Your task to perform on an android device: open a bookmark in the chrome app Image 0: 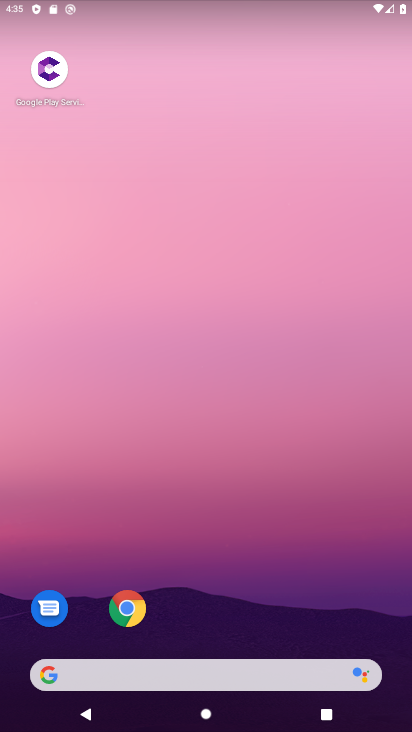
Step 0: drag from (249, 573) to (255, 196)
Your task to perform on an android device: open a bookmark in the chrome app Image 1: 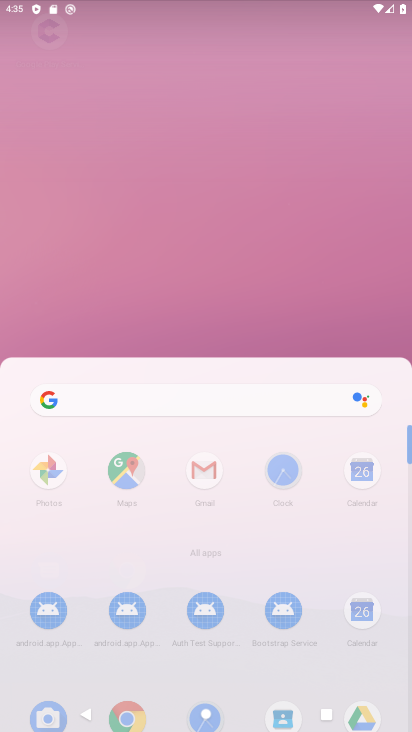
Step 1: drag from (244, 411) to (214, 31)
Your task to perform on an android device: open a bookmark in the chrome app Image 2: 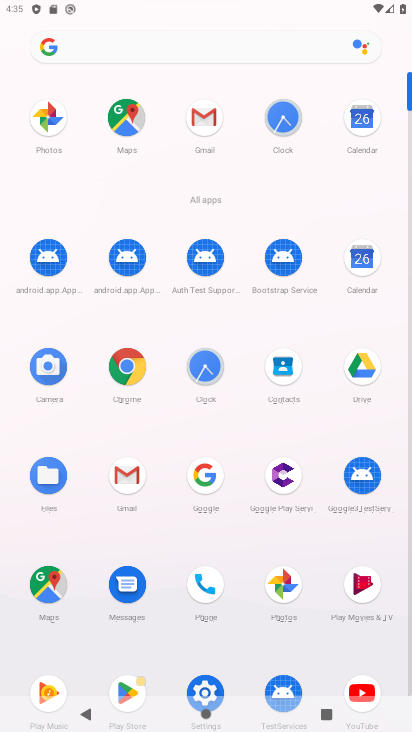
Step 2: drag from (232, 363) to (193, 27)
Your task to perform on an android device: open a bookmark in the chrome app Image 3: 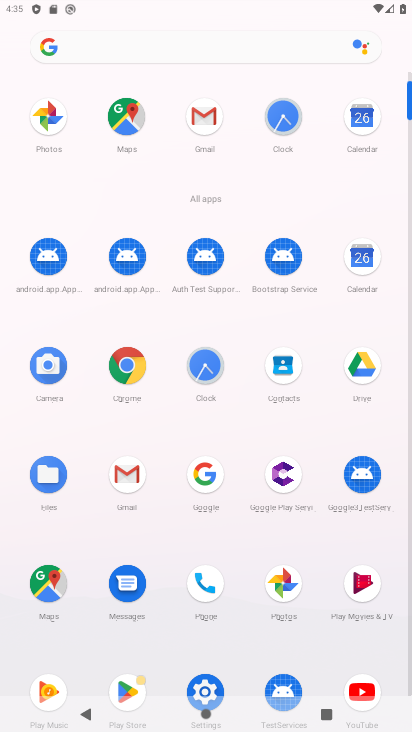
Step 3: click (133, 360)
Your task to perform on an android device: open a bookmark in the chrome app Image 4: 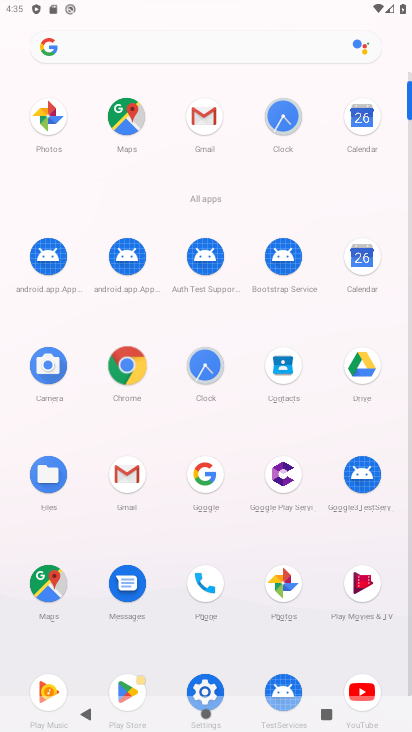
Step 4: click (135, 364)
Your task to perform on an android device: open a bookmark in the chrome app Image 5: 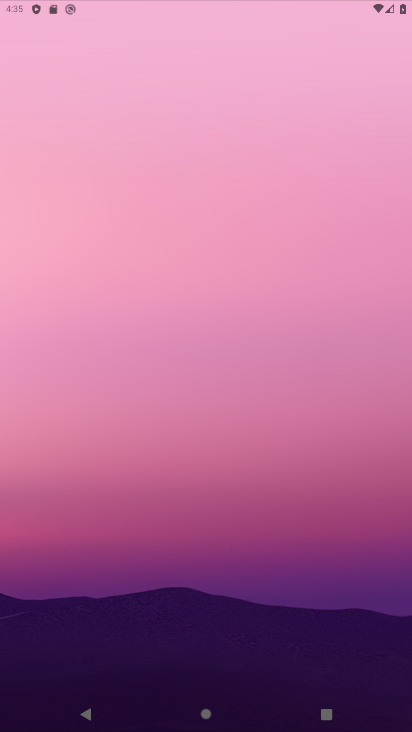
Step 5: click (135, 358)
Your task to perform on an android device: open a bookmark in the chrome app Image 6: 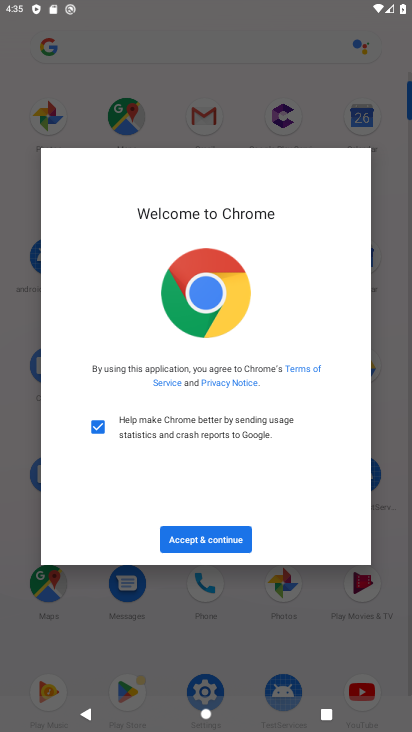
Step 6: click (204, 544)
Your task to perform on an android device: open a bookmark in the chrome app Image 7: 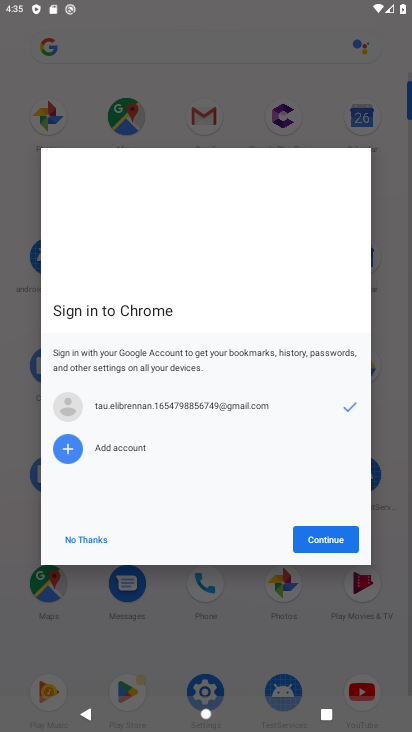
Step 7: click (210, 535)
Your task to perform on an android device: open a bookmark in the chrome app Image 8: 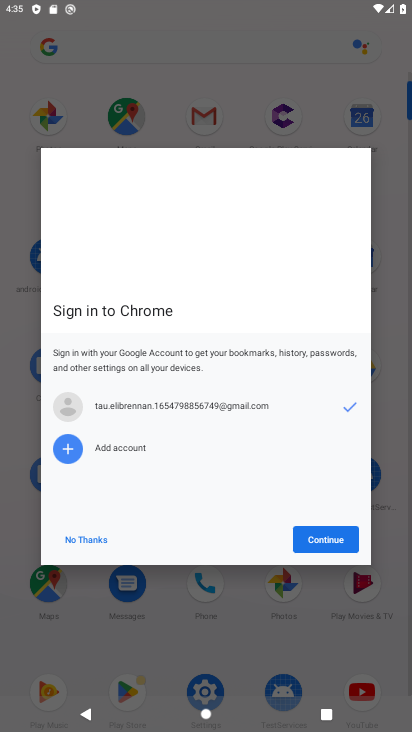
Step 8: click (211, 535)
Your task to perform on an android device: open a bookmark in the chrome app Image 9: 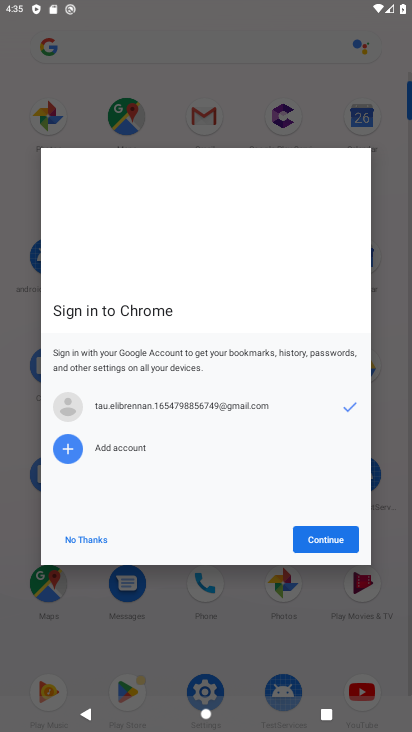
Step 9: click (90, 543)
Your task to perform on an android device: open a bookmark in the chrome app Image 10: 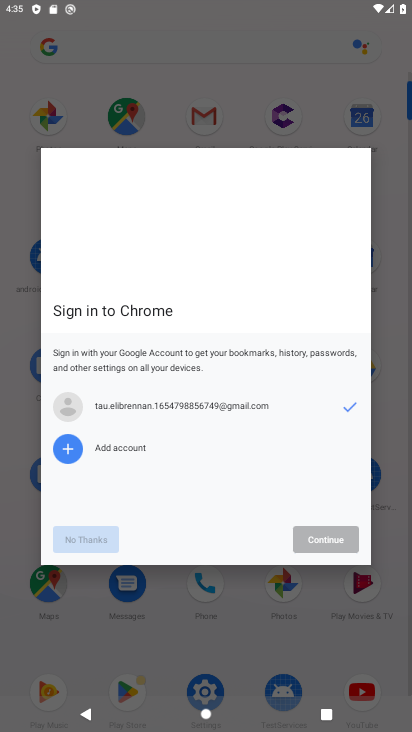
Step 10: click (90, 543)
Your task to perform on an android device: open a bookmark in the chrome app Image 11: 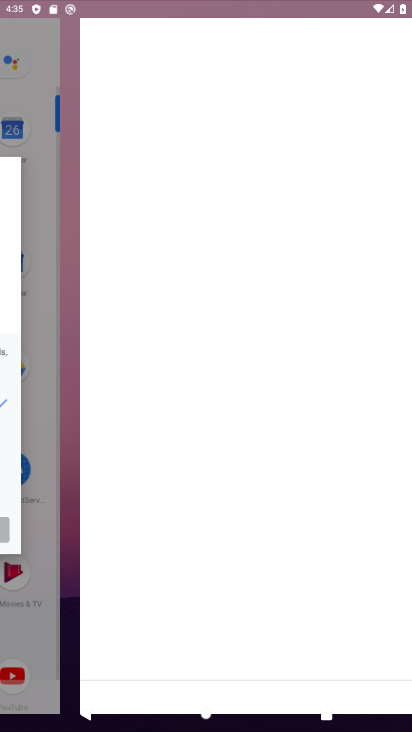
Step 11: click (94, 522)
Your task to perform on an android device: open a bookmark in the chrome app Image 12: 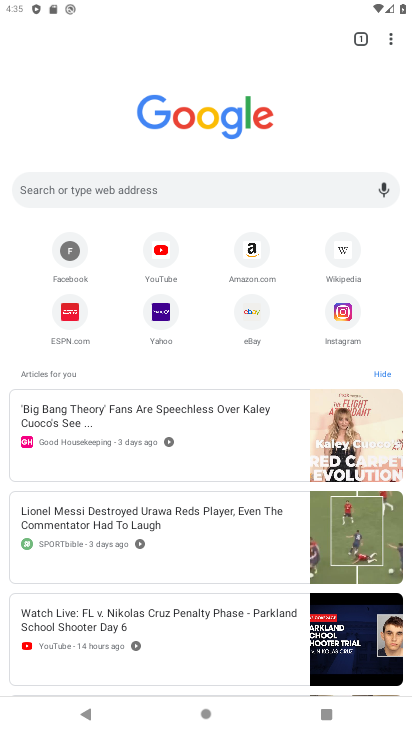
Step 12: drag from (222, 338) to (218, 24)
Your task to perform on an android device: open a bookmark in the chrome app Image 13: 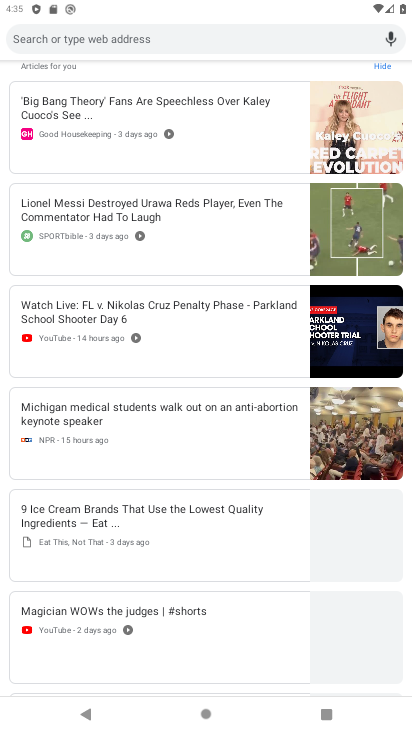
Step 13: drag from (210, 352) to (197, 87)
Your task to perform on an android device: open a bookmark in the chrome app Image 14: 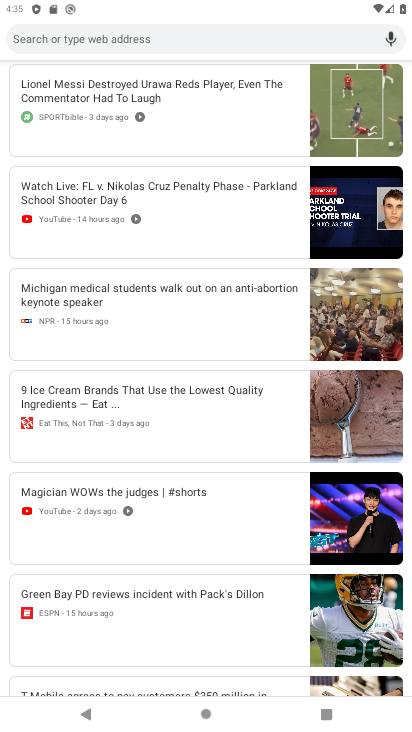
Step 14: click (207, 75)
Your task to perform on an android device: open a bookmark in the chrome app Image 15: 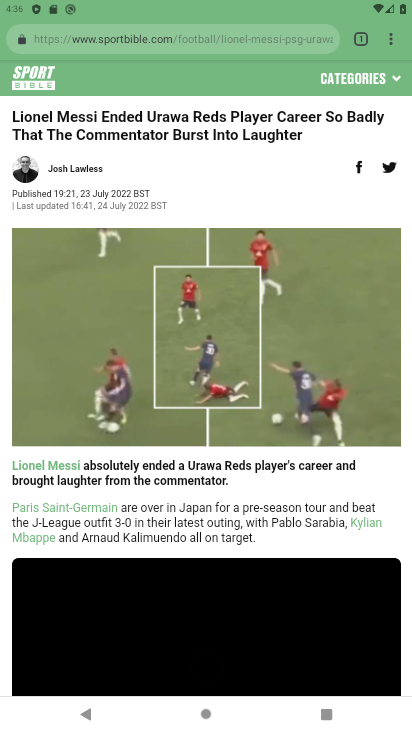
Step 15: drag from (257, 395) to (195, 76)
Your task to perform on an android device: open a bookmark in the chrome app Image 16: 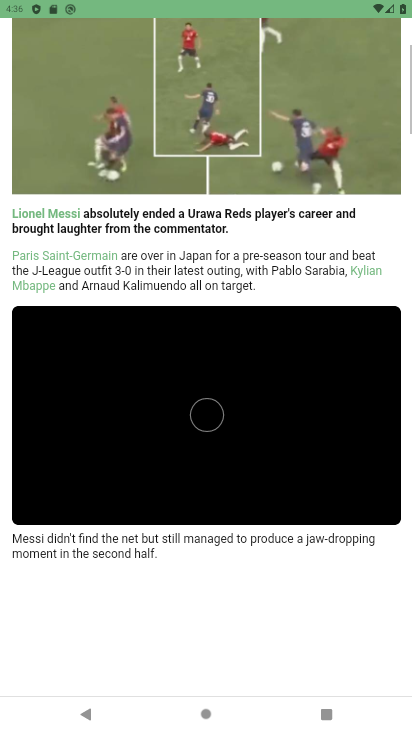
Step 16: drag from (266, 433) to (241, 230)
Your task to perform on an android device: open a bookmark in the chrome app Image 17: 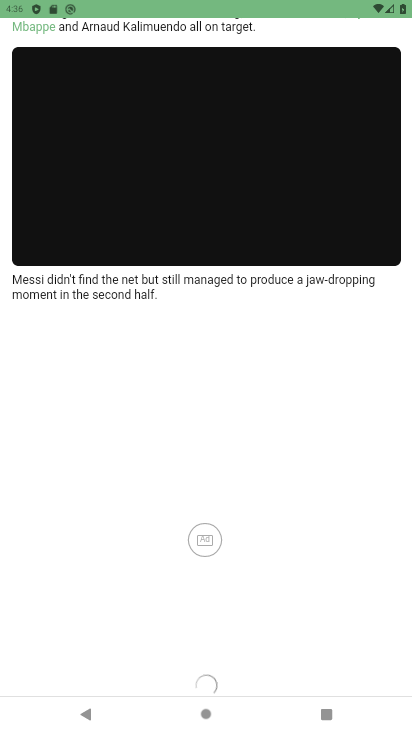
Step 17: drag from (195, 372) to (194, 228)
Your task to perform on an android device: open a bookmark in the chrome app Image 18: 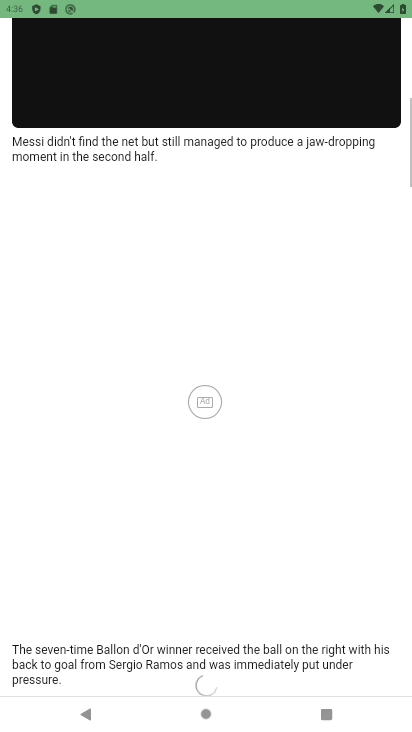
Step 18: click (249, 534)
Your task to perform on an android device: open a bookmark in the chrome app Image 19: 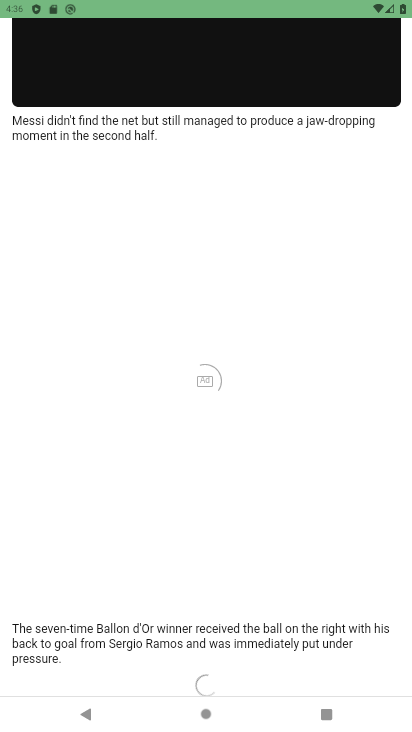
Step 19: click (257, 194)
Your task to perform on an android device: open a bookmark in the chrome app Image 20: 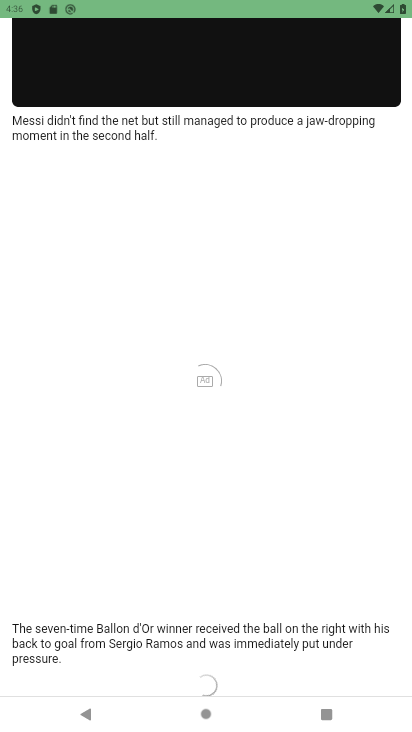
Step 20: drag from (208, 283) to (192, 123)
Your task to perform on an android device: open a bookmark in the chrome app Image 21: 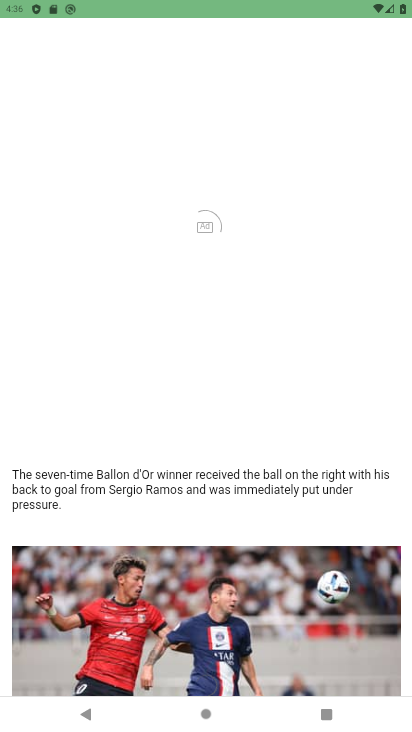
Step 21: drag from (217, 274) to (250, 517)
Your task to perform on an android device: open a bookmark in the chrome app Image 22: 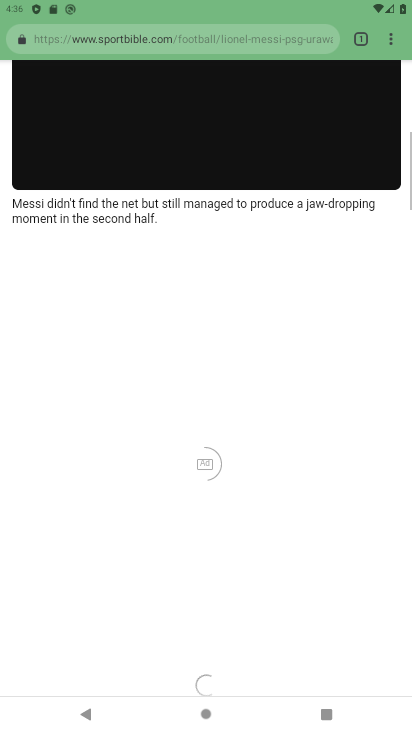
Step 22: drag from (240, 432) to (254, 546)
Your task to perform on an android device: open a bookmark in the chrome app Image 23: 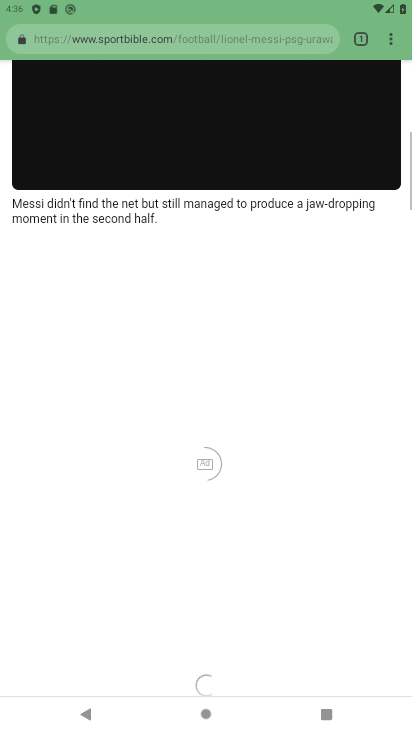
Step 23: drag from (177, 223) to (171, 487)
Your task to perform on an android device: open a bookmark in the chrome app Image 24: 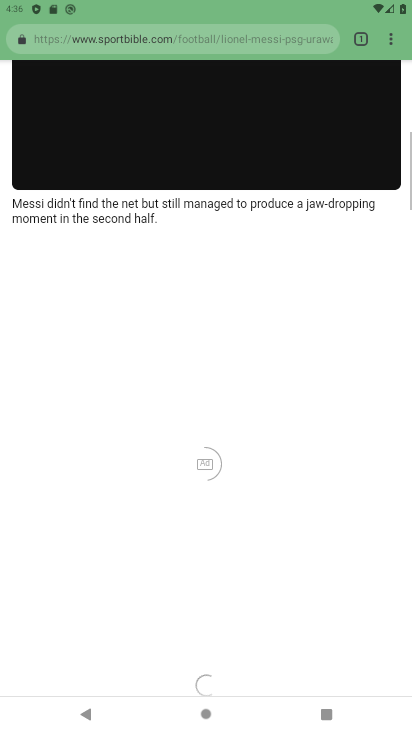
Step 24: drag from (181, 137) to (191, 504)
Your task to perform on an android device: open a bookmark in the chrome app Image 25: 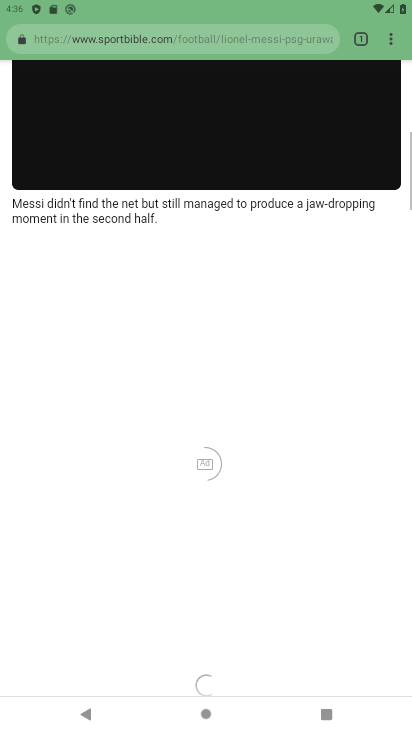
Step 25: drag from (153, 225) to (213, 429)
Your task to perform on an android device: open a bookmark in the chrome app Image 26: 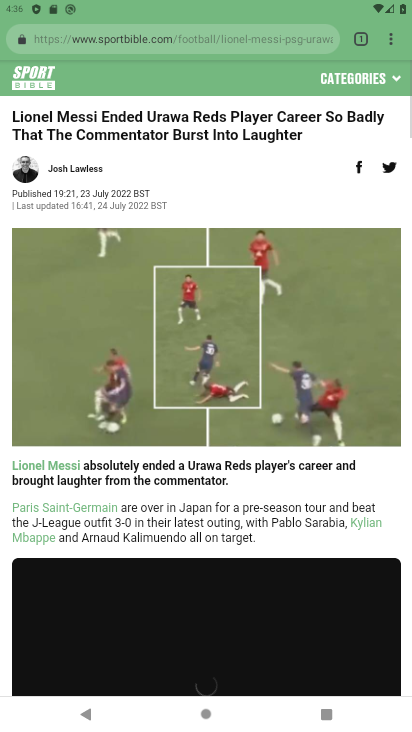
Step 26: drag from (229, 256) to (235, 447)
Your task to perform on an android device: open a bookmark in the chrome app Image 27: 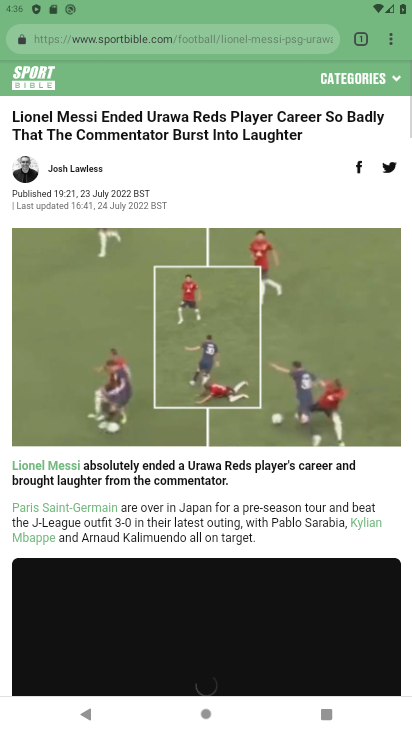
Step 27: drag from (209, 494) to (171, 469)
Your task to perform on an android device: open a bookmark in the chrome app Image 28: 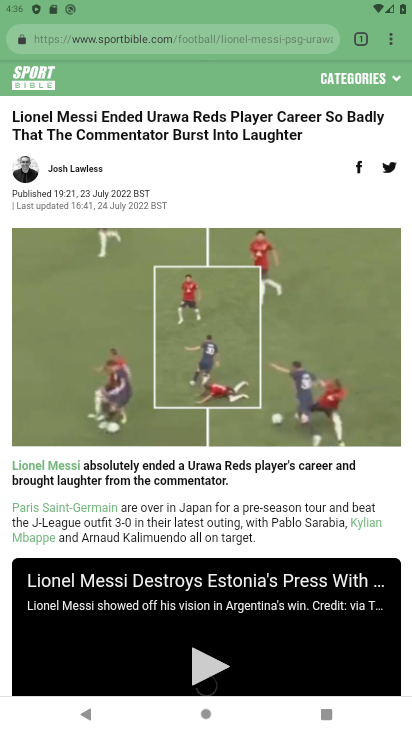
Step 28: drag from (148, 152) to (203, 449)
Your task to perform on an android device: open a bookmark in the chrome app Image 29: 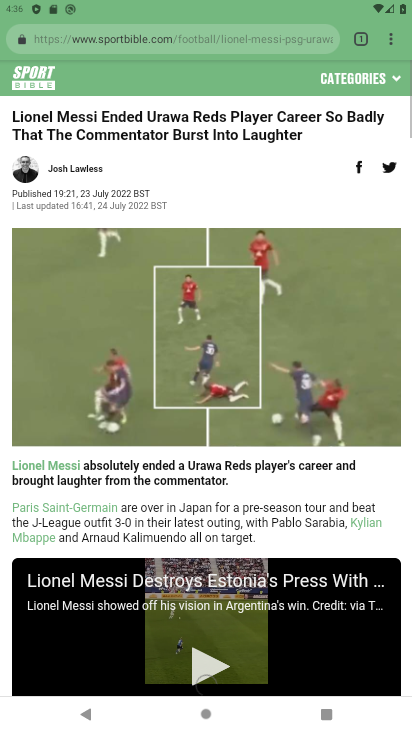
Step 29: drag from (180, 275) to (209, 533)
Your task to perform on an android device: open a bookmark in the chrome app Image 30: 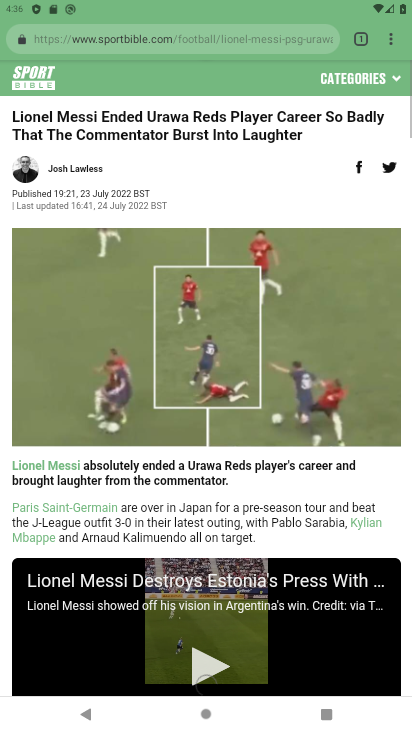
Step 30: click (247, 435)
Your task to perform on an android device: open a bookmark in the chrome app Image 31: 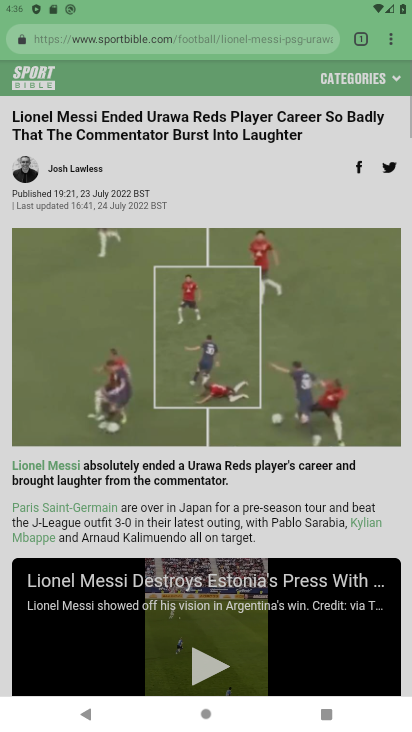
Step 31: click (387, 44)
Your task to perform on an android device: open a bookmark in the chrome app Image 32: 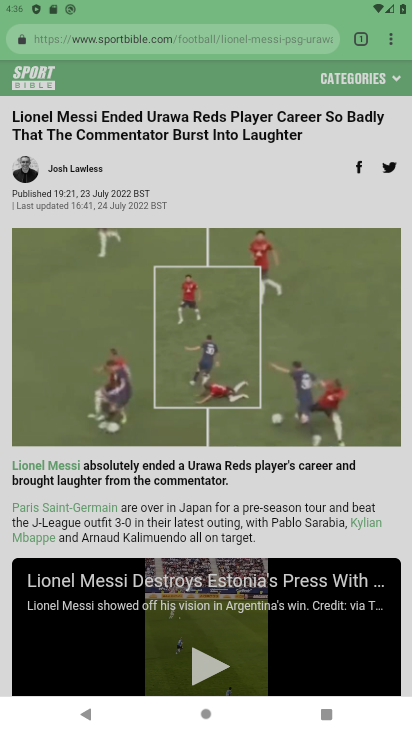
Step 32: click (384, 44)
Your task to perform on an android device: open a bookmark in the chrome app Image 33: 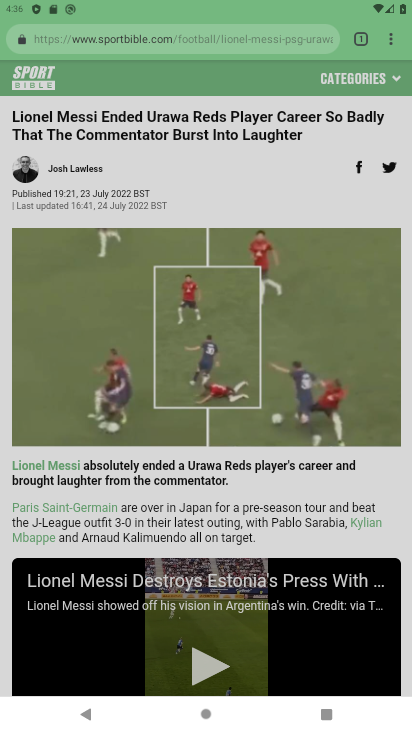
Step 33: click (383, 44)
Your task to perform on an android device: open a bookmark in the chrome app Image 34: 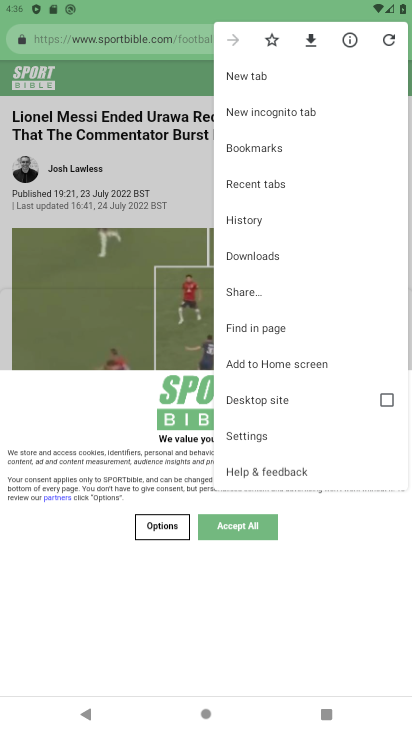
Step 34: click (397, 38)
Your task to perform on an android device: open a bookmark in the chrome app Image 35: 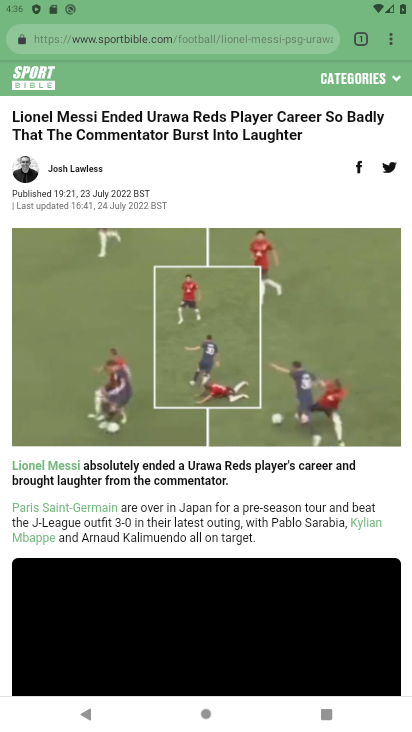
Step 35: click (389, 38)
Your task to perform on an android device: open a bookmark in the chrome app Image 36: 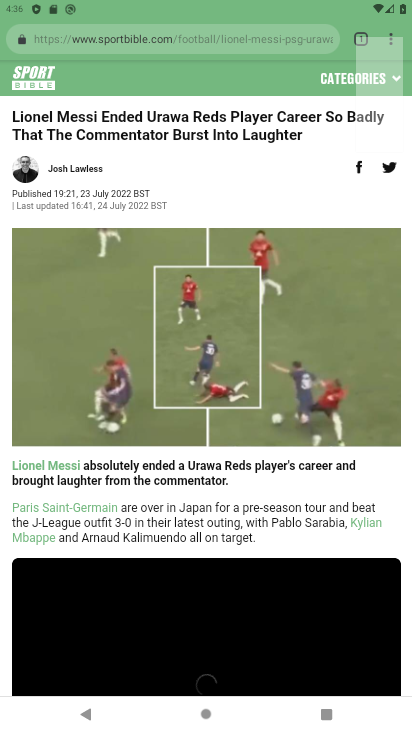
Step 36: click (392, 44)
Your task to perform on an android device: open a bookmark in the chrome app Image 37: 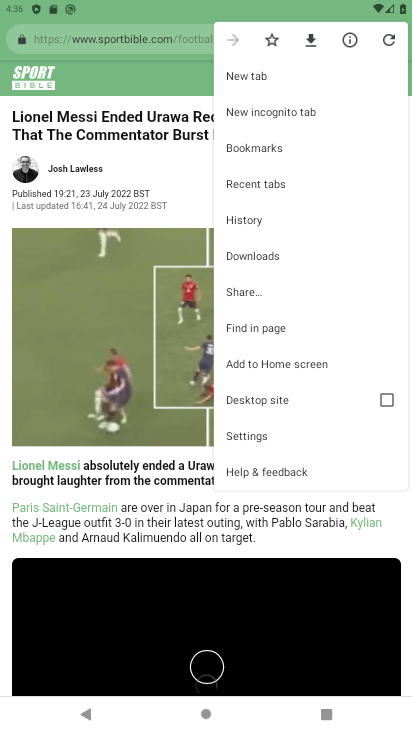
Step 37: click (392, 39)
Your task to perform on an android device: open a bookmark in the chrome app Image 38: 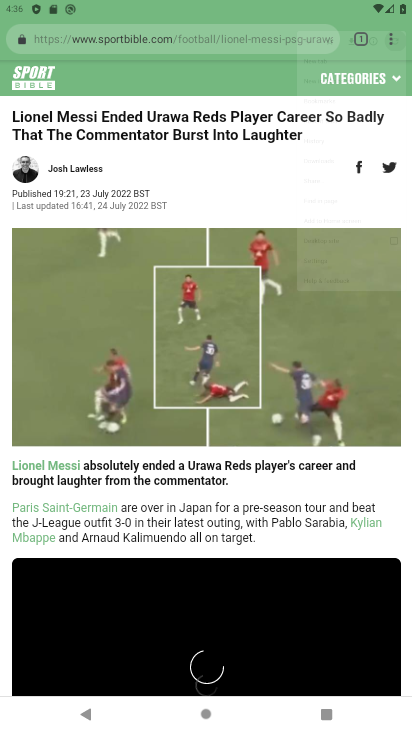
Step 38: click (333, 106)
Your task to perform on an android device: open a bookmark in the chrome app Image 39: 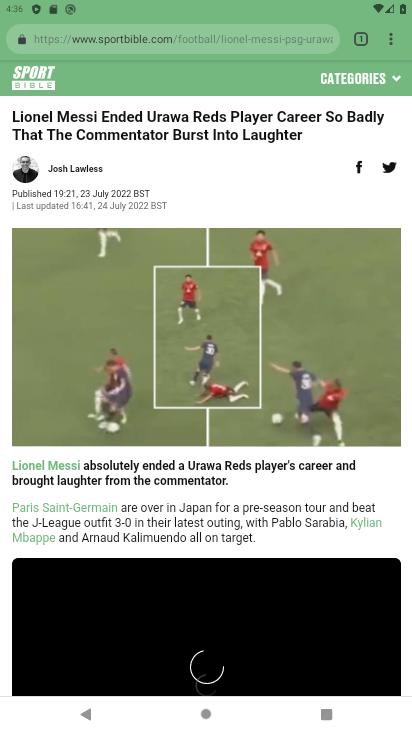
Step 39: click (304, 133)
Your task to perform on an android device: open a bookmark in the chrome app Image 40: 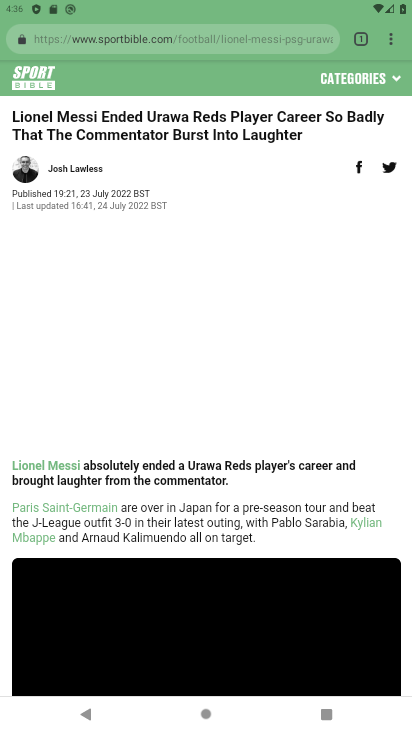
Step 40: click (382, 47)
Your task to perform on an android device: open a bookmark in the chrome app Image 41: 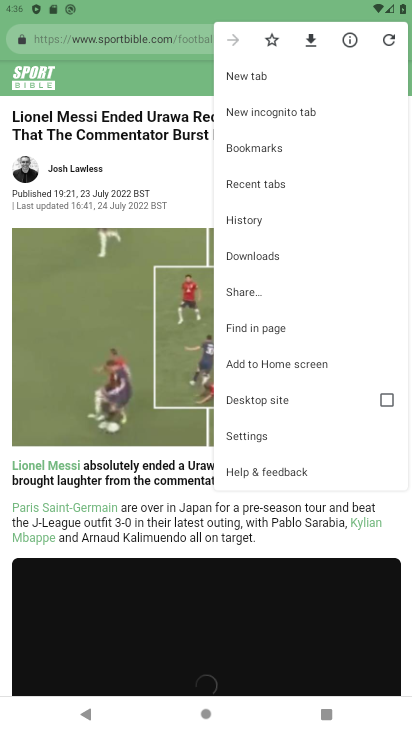
Step 41: click (256, 132)
Your task to perform on an android device: open a bookmark in the chrome app Image 42: 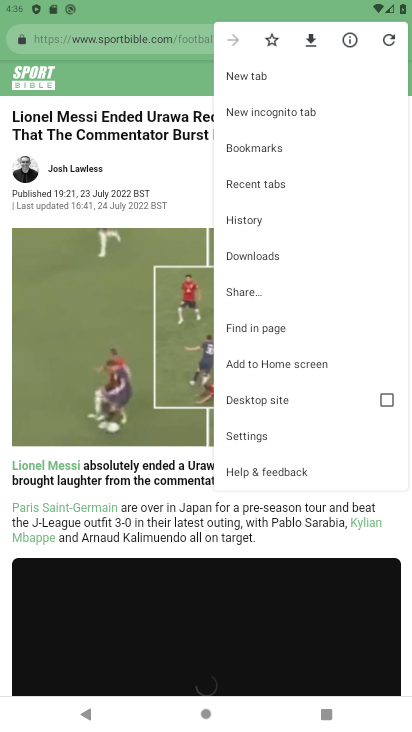
Step 42: click (256, 132)
Your task to perform on an android device: open a bookmark in the chrome app Image 43: 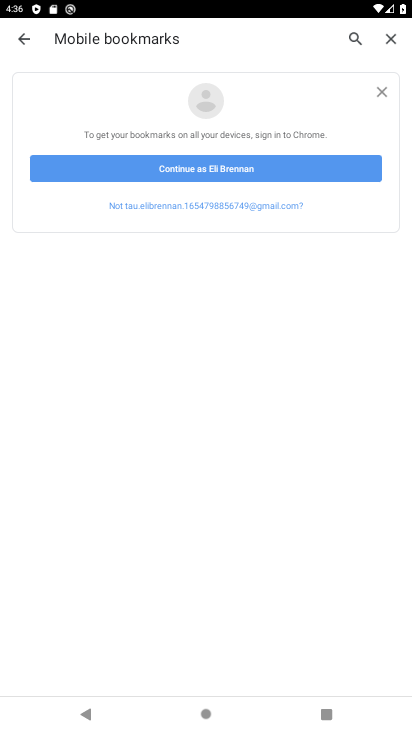
Step 43: click (390, 36)
Your task to perform on an android device: open a bookmark in the chrome app Image 44: 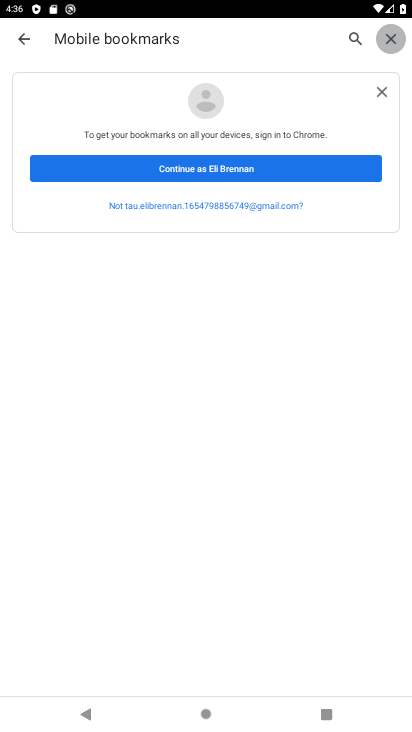
Step 44: click (397, 40)
Your task to perform on an android device: open a bookmark in the chrome app Image 45: 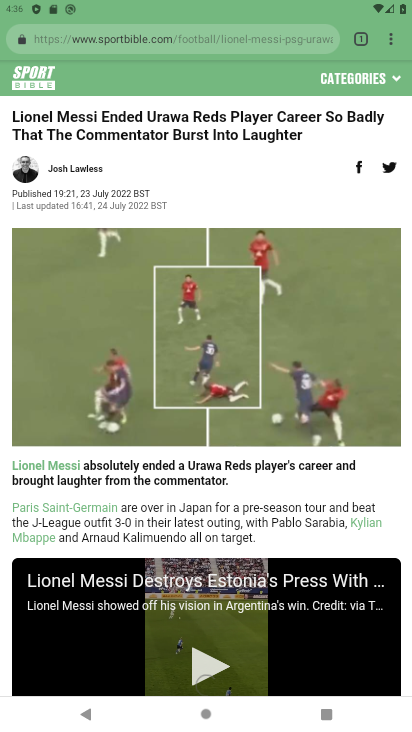
Step 45: click (385, 41)
Your task to perform on an android device: open a bookmark in the chrome app Image 46: 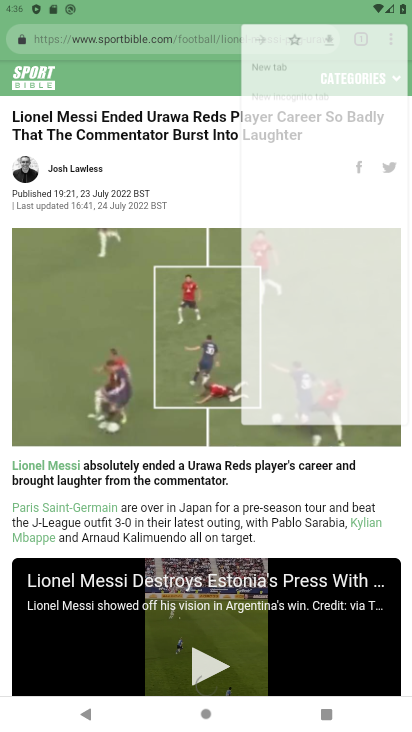
Step 46: click (388, 40)
Your task to perform on an android device: open a bookmark in the chrome app Image 47: 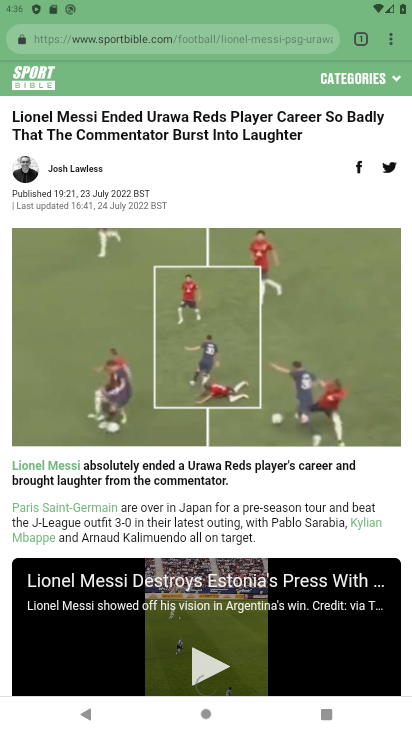
Step 47: drag from (395, 44) to (246, 153)
Your task to perform on an android device: open a bookmark in the chrome app Image 48: 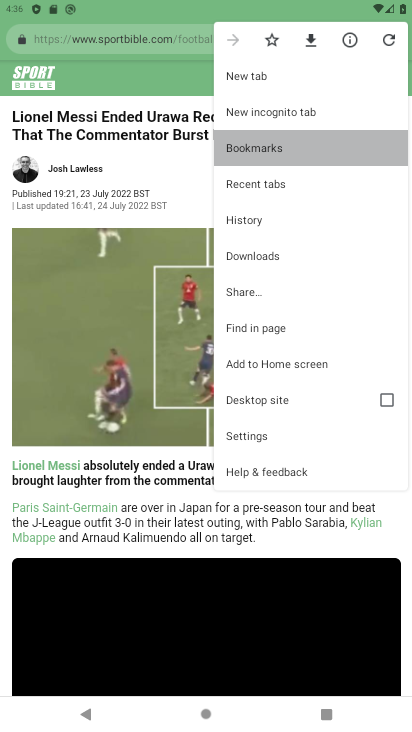
Step 48: click (244, 153)
Your task to perform on an android device: open a bookmark in the chrome app Image 49: 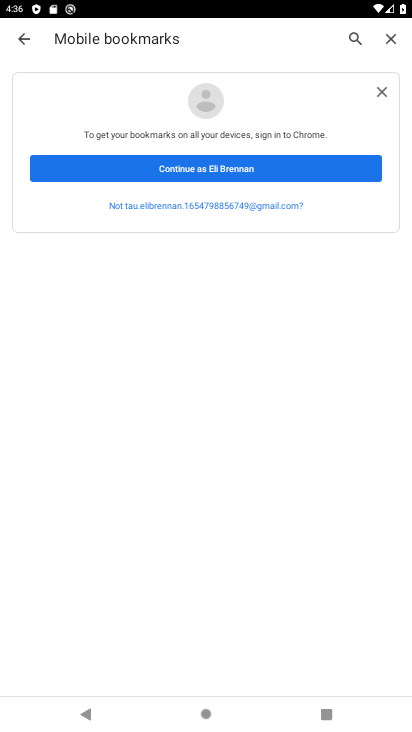
Step 49: click (376, 102)
Your task to perform on an android device: open a bookmark in the chrome app Image 50: 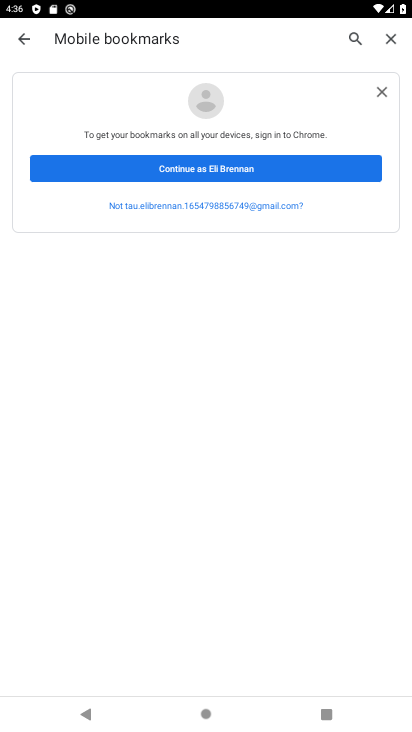
Step 50: click (375, 87)
Your task to perform on an android device: open a bookmark in the chrome app Image 51: 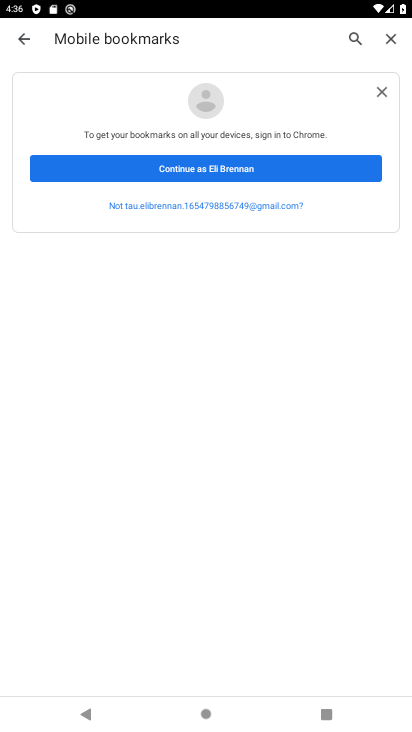
Step 51: click (375, 87)
Your task to perform on an android device: open a bookmark in the chrome app Image 52: 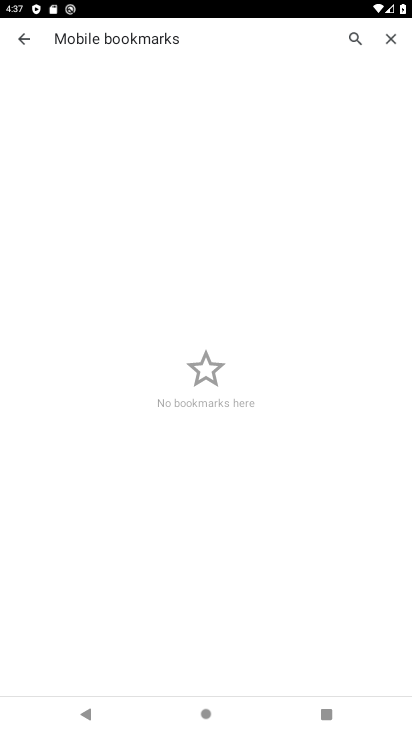
Step 52: click (20, 37)
Your task to perform on an android device: open a bookmark in the chrome app Image 53: 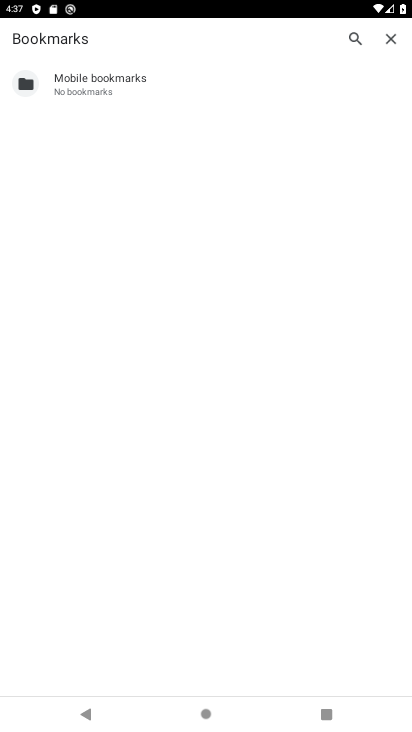
Step 53: click (21, 36)
Your task to perform on an android device: open a bookmark in the chrome app Image 54: 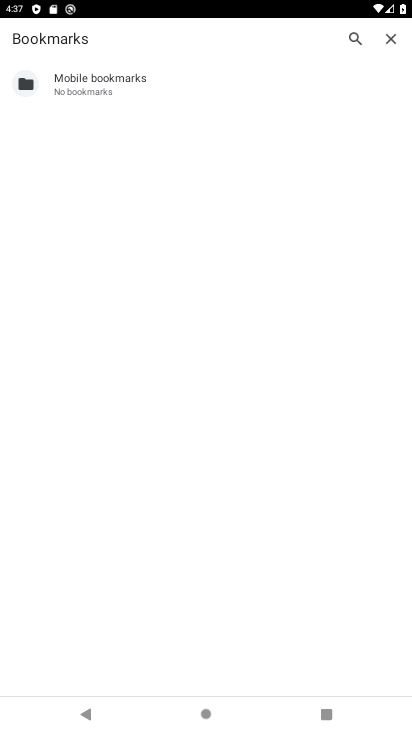
Step 54: click (21, 34)
Your task to perform on an android device: open a bookmark in the chrome app Image 55: 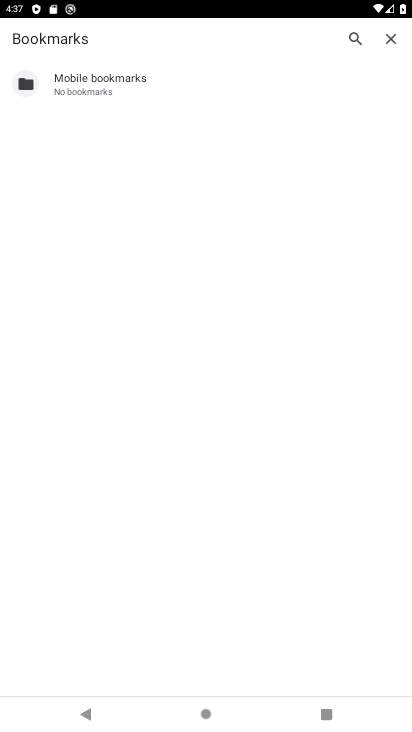
Step 55: click (396, 43)
Your task to perform on an android device: open a bookmark in the chrome app Image 56: 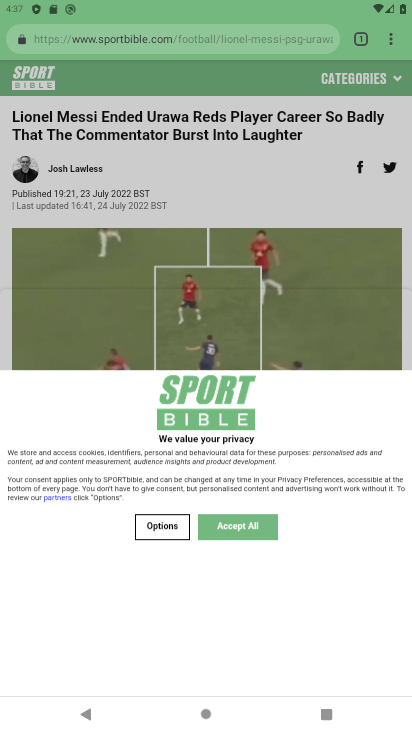
Step 56: click (394, 36)
Your task to perform on an android device: open a bookmark in the chrome app Image 57: 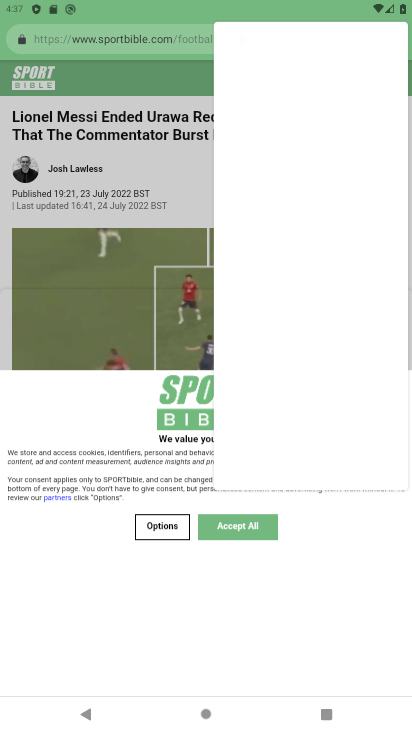
Step 57: click (396, 34)
Your task to perform on an android device: open a bookmark in the chrome app Image 58: 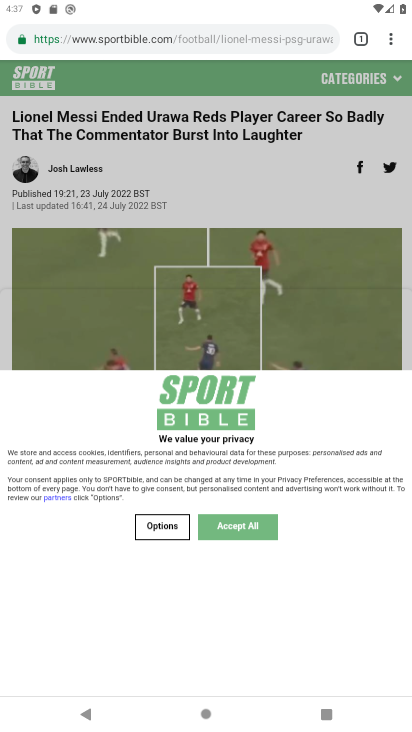
Step 58: click (393, 37)
Your task to perform on an android device: open a bookmark in the chrome app Image 59: 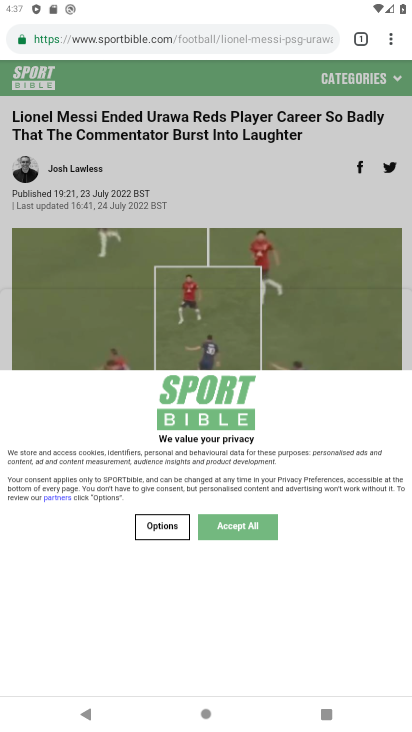
Step 59: drag from (393, 37) to (246, 149)
Your task to perform on an android device: open a bookmark in the chrome app Image 60: 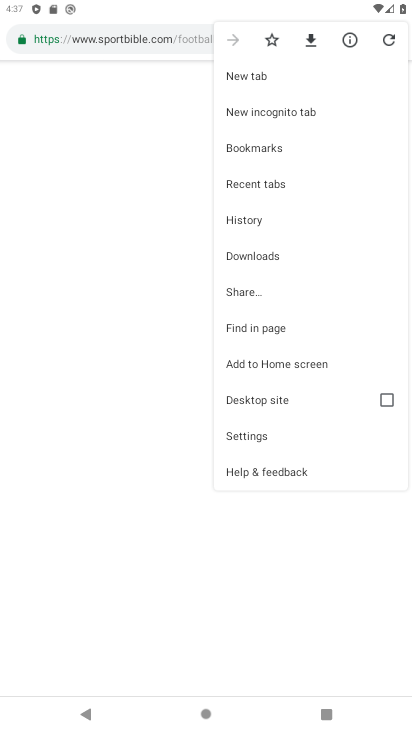
Step 60: click (246, 149)
Your task to perform on an android device: open a bookmark in the chrome app Image 61: 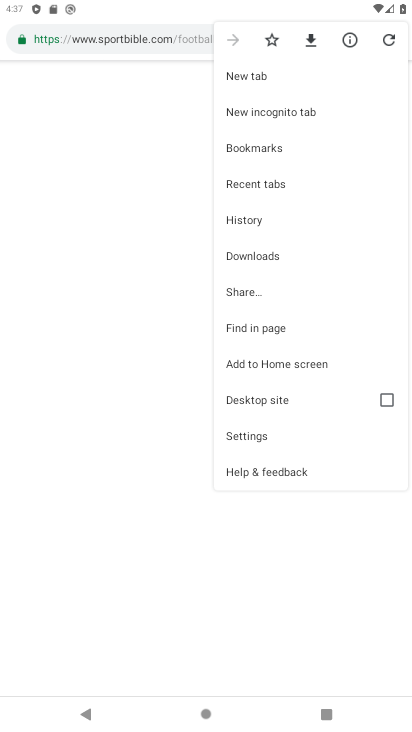
Step 61: click (246, 149)
Your task to perform on an android device: open a bookmark in the chrome app Image 62: 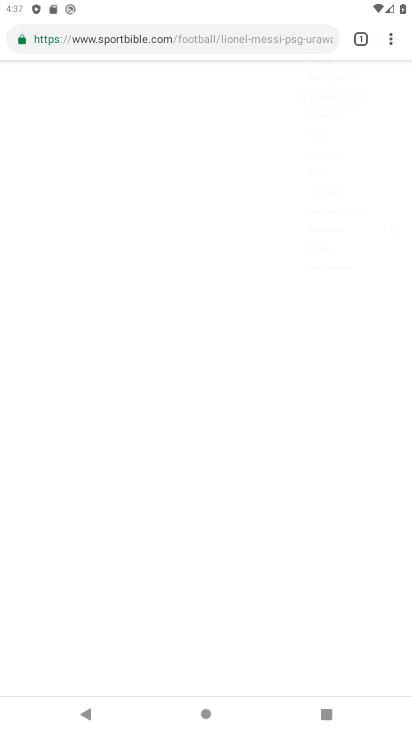
Step 62: click (248, 149)
Your task to perform on an android device: open a bookmark in the chrome app Image 63: 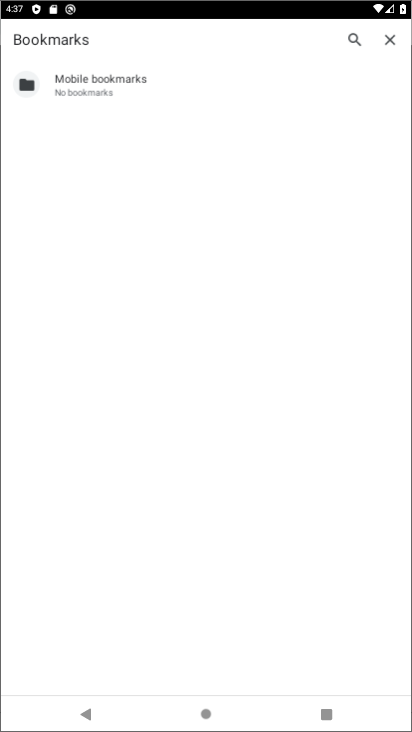
Step 63: click (250, 149)
Your task to perform on an android device: open a bookmark in the chrome app Image 64: 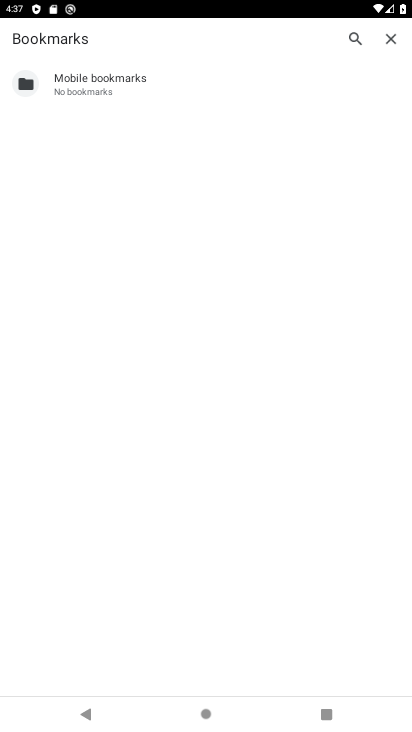
Step 64: click (115, 80)
Your task to perform on an android device: open a bookmark in the chrome app Image 65: 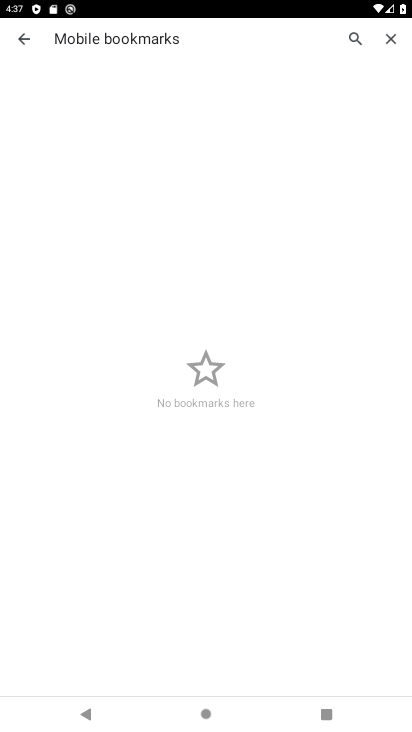
Step 65: click (116, 79)
Your task to perform on an android device: open a bookmark in the chrome app Image 66: 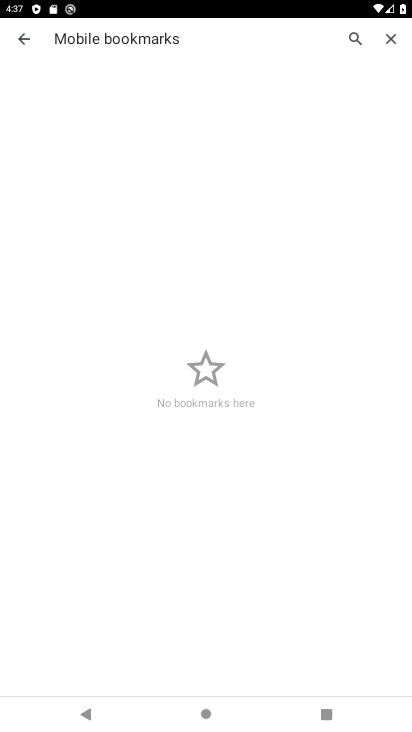
Step 66: click (118, 78)
Your task to perform on an android device: open a bookmark in the chrome app Image 67: 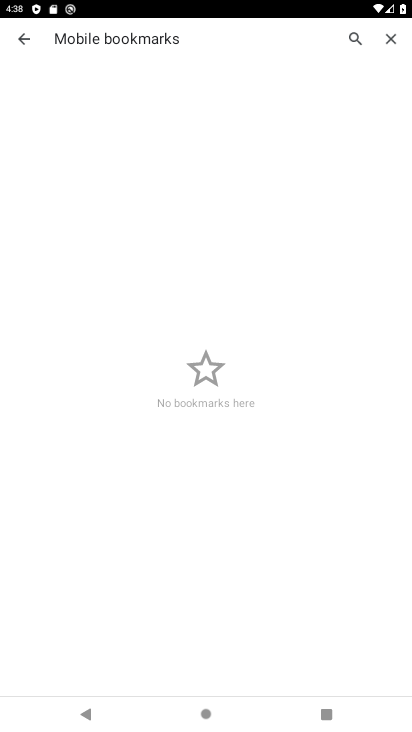
Step 67: task complete